Your task to perform on an android device: set the timer Image 0: 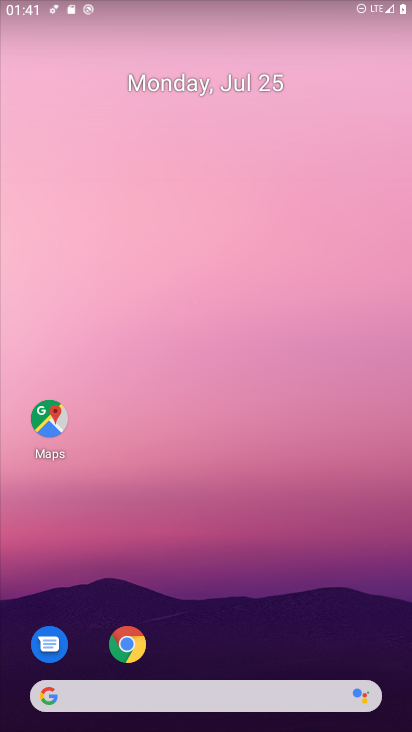
Step 0: drag from (259, 729) to (201, 168)
Your task to perform on an android device: set the timer Image 1: 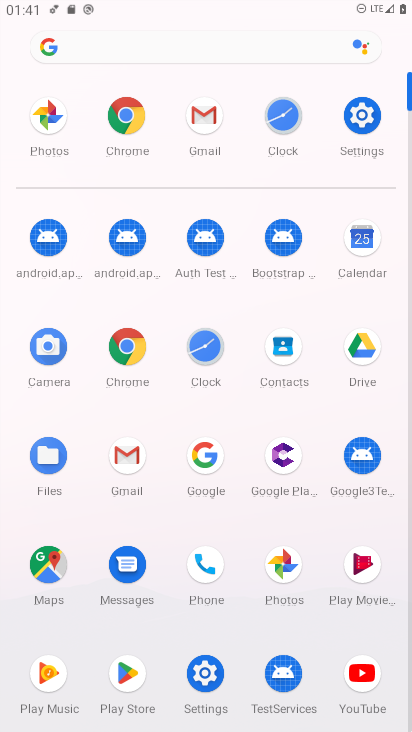
Step 1: click (207, 344)
Your task to perform on an android device: set the timer Image 2: 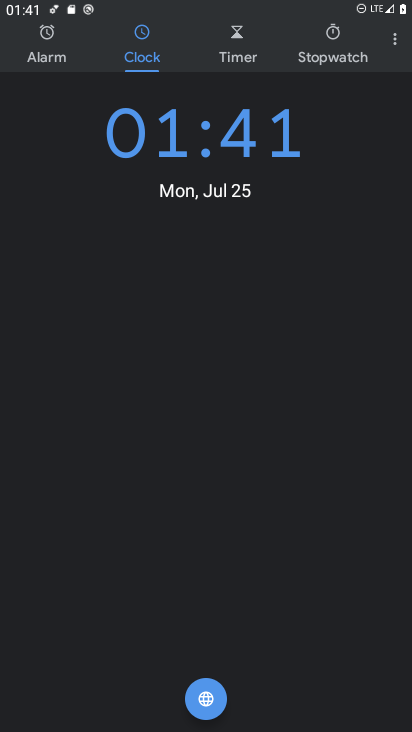
Step 2: click (234, 36)
Your task to perform on an android device: set the timer Image 3: 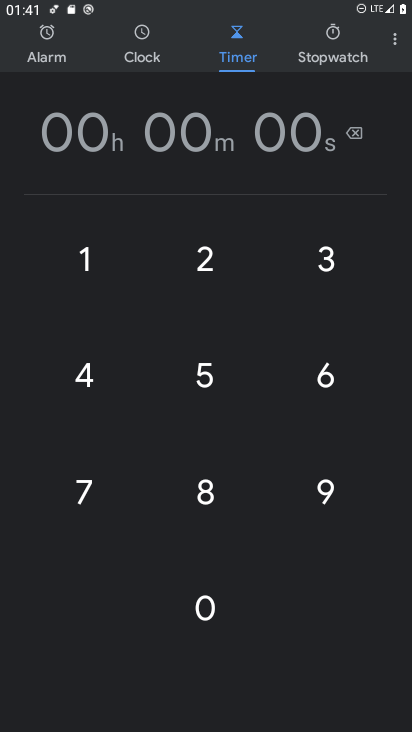
Step 3: click (200, 249)
Your task to perform on an android device: set the timer Image 4: 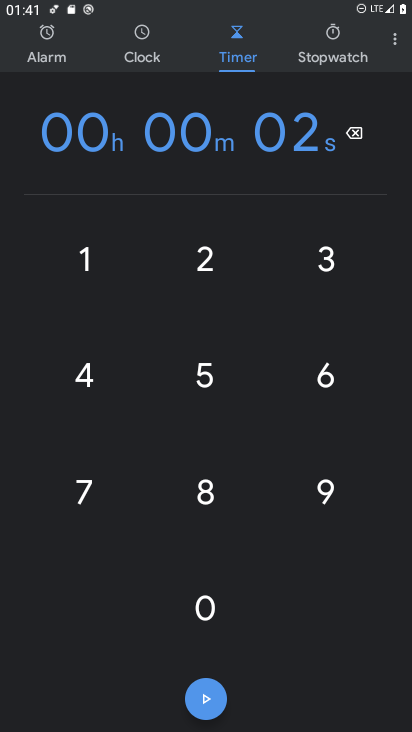
Step 4: click (73, 250)
Your task to perform on an android device: set the timer Image 5: 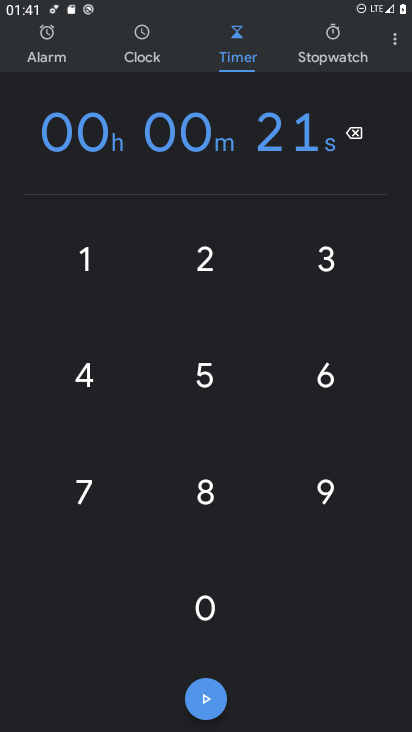
Step 5: click (85, 375)
Your task to perform on an android device: set the timer Image 6: 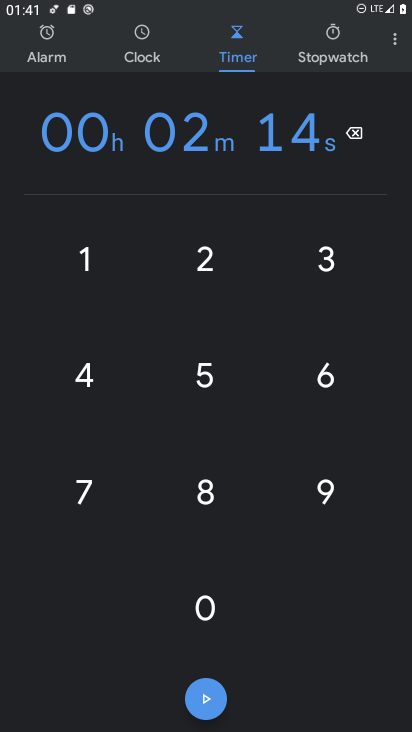
Step 6: click (205, 688)
Your task to perform on an android device: set the timer Image 7: 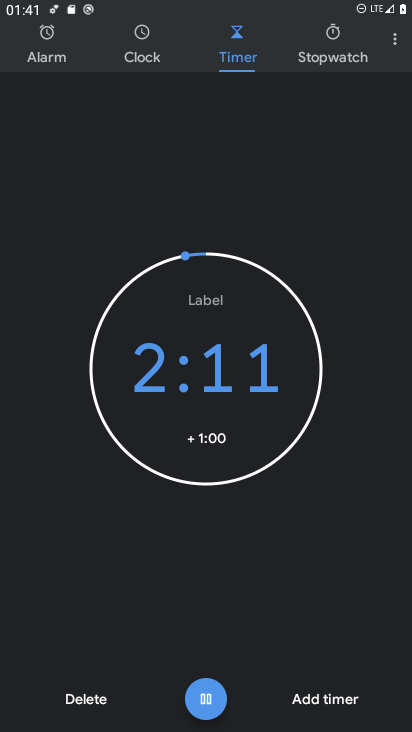
Step 7: task complete